Your task to perform on an android device: What's on my calendar tomorrow? Image 0: 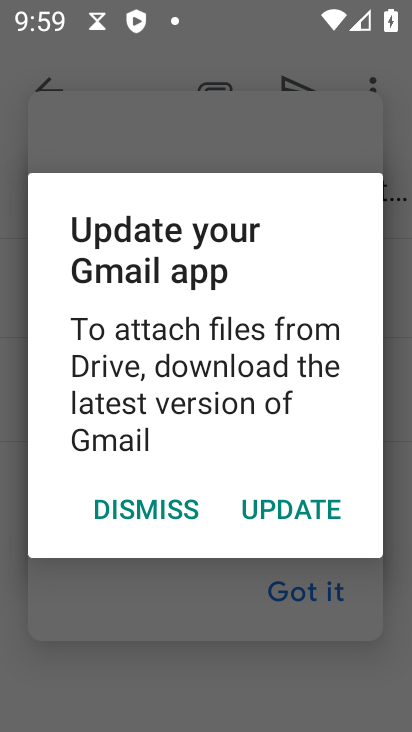
Step 0: press home button
Your task to perform on an android device: What's on my calendar tomorrow? Image 1: 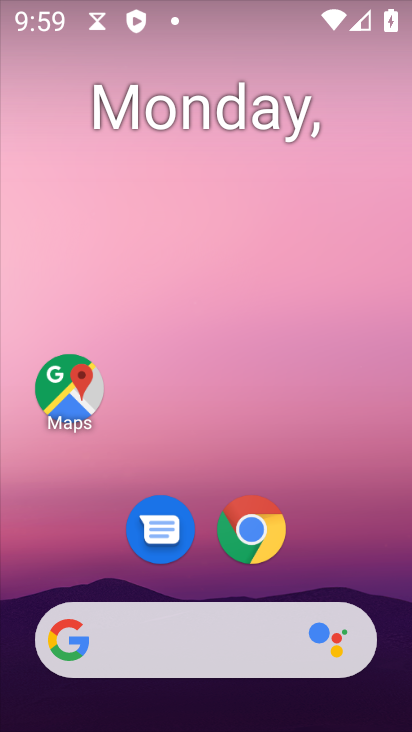
Step 1: drag from (299, 564) to (227, 102)
Your task to perform on an android device: What's on my calendar tomorrow? Image 2: 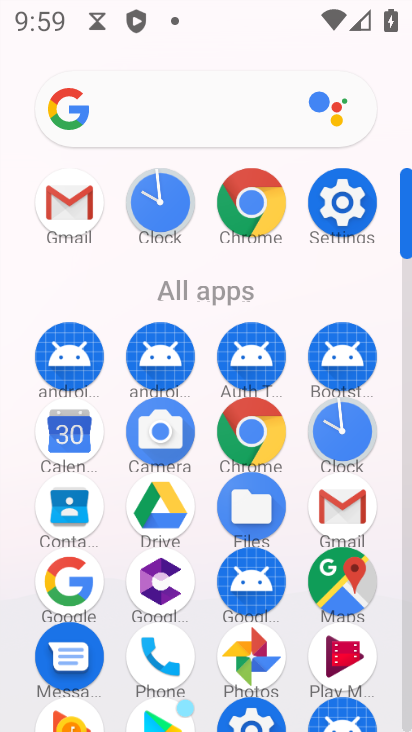
Step 2: click (71, 433)
Your task to perform on an android device: What's on my calendar tomorrow? Image 3: 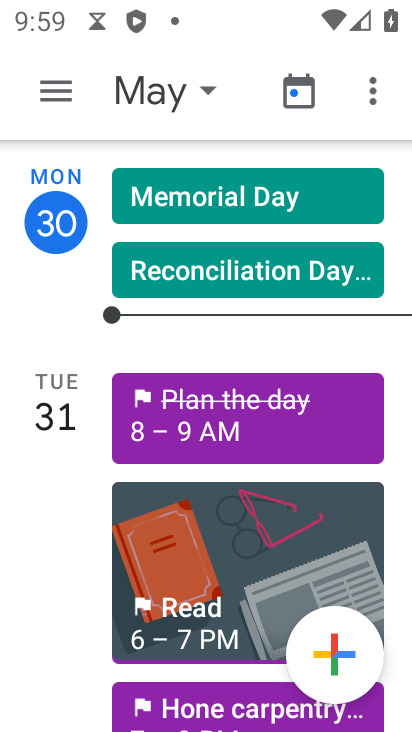
Step 3: click (303, 92)
Your task to perform on an android device: What's on my calendar tomorrow? Image 4: 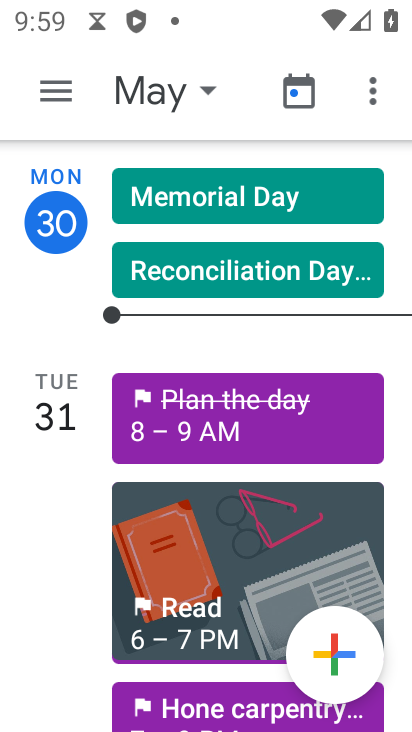
Step 4: click (194, 88)
Your task to perform on an android device: What's on my calendar tomorrow? Image 5: 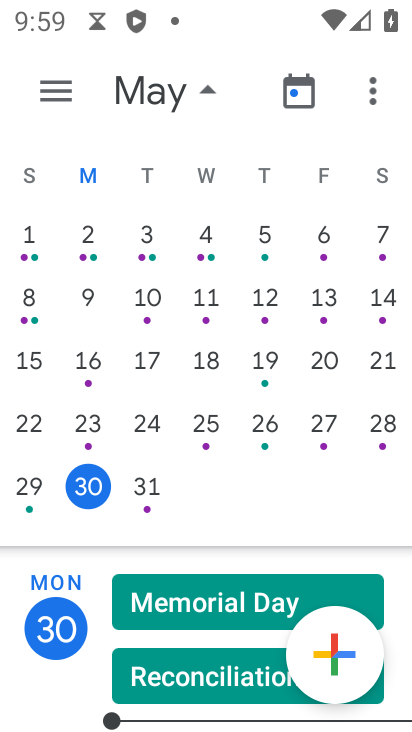
Step 5: click (144, 496)
Your task to perform on an android device: What's on my calendar tomorrow? Image 6: 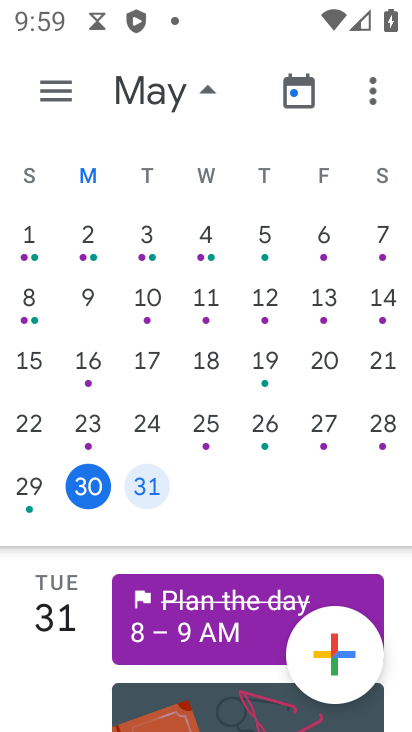
Step 6: click (43, 84)
Your task to perform on an android device: What's on my calendar tomorrow? Image 7: 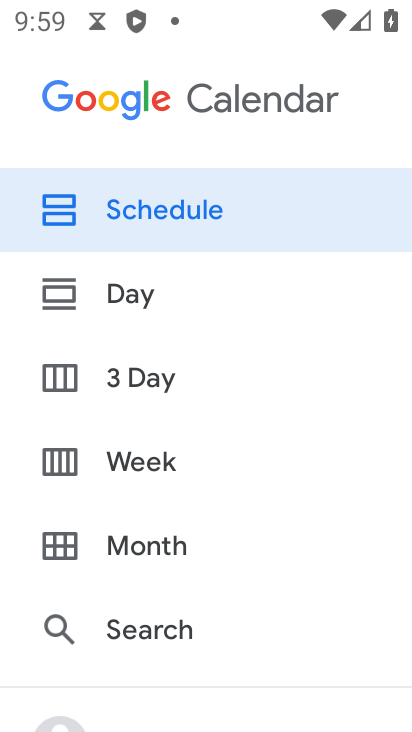
Step 7: click (176, 232)
Your task to perform on an android device: What's on my calendar tomorrow? Image 8: 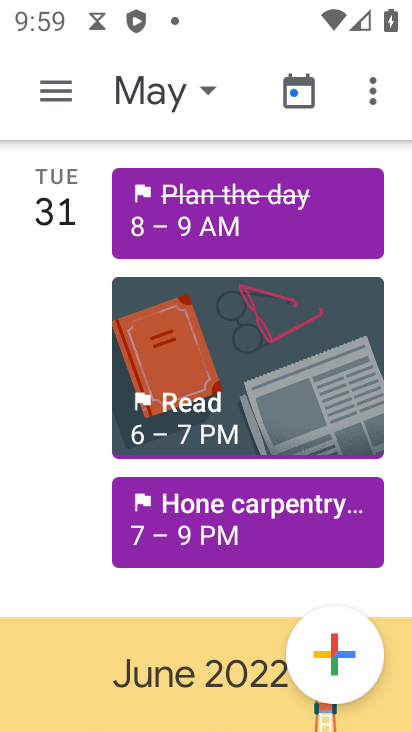
Step 8: task complete